Your task to perform on an android device: add a label to a message in the gmail app Image 0: 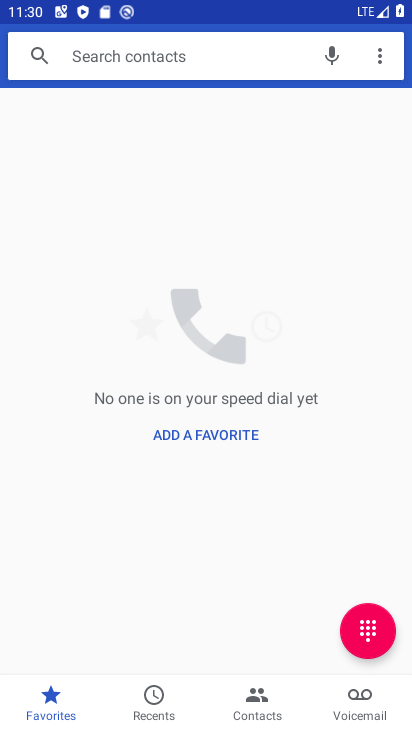
Step 0: press home button
Your task to perform on an android device: add a label to a message in the gmail app Image 1: 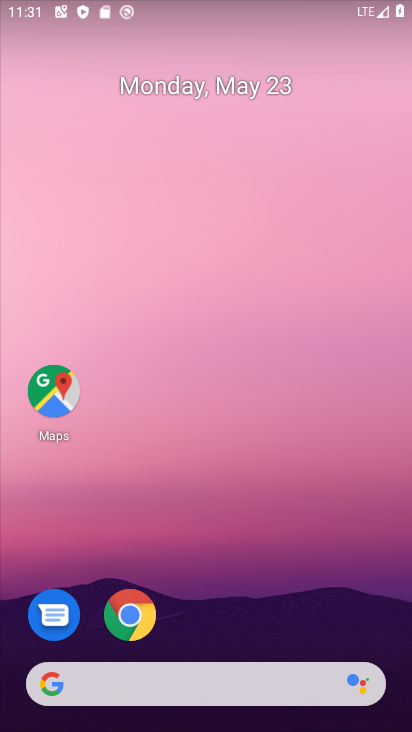
Step 1: drag from (392, 616) to (400, 133)
Your task to perform on an android device: add a label to a message in the gmail app Image 2: 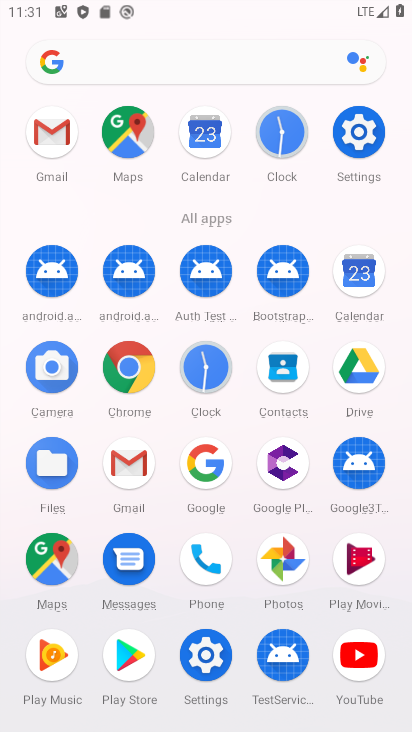
Step 2: click (52, 143)
Your task to perform on an android device: add a label to a message in the gmail app Image 3: 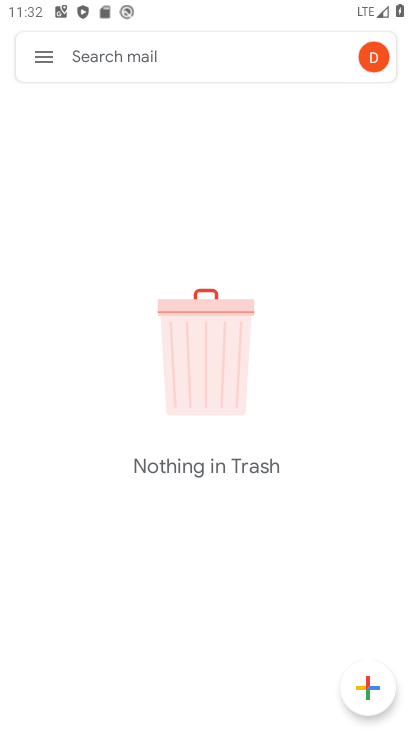
Step 3: click (59, 43)
Your task to perform on an android device: add a label to a message in the gmail app Image 4: 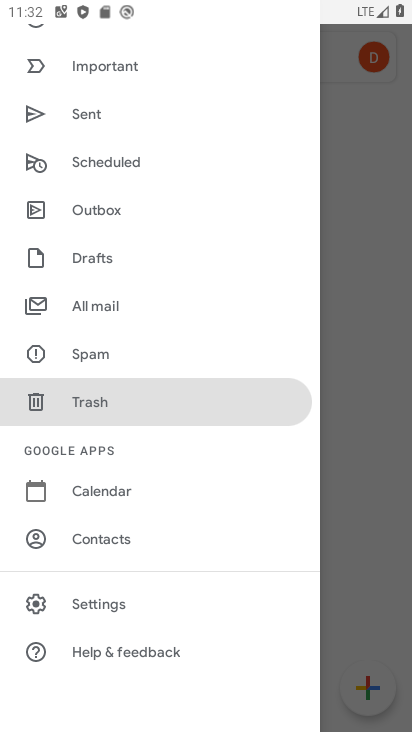
Step 4: click (134, 318)
Your task to perform on an android device: add a label to a message in the gmail app Image 5: 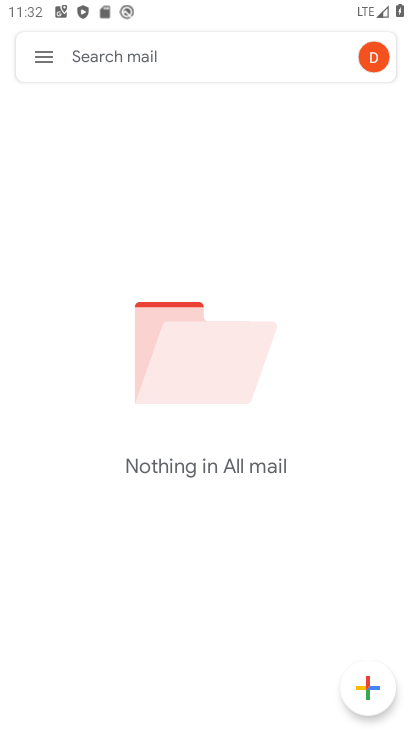
Step 5: task complete